Your task to perform on an android device: Set the phone to "Do not disturb". Image 0: 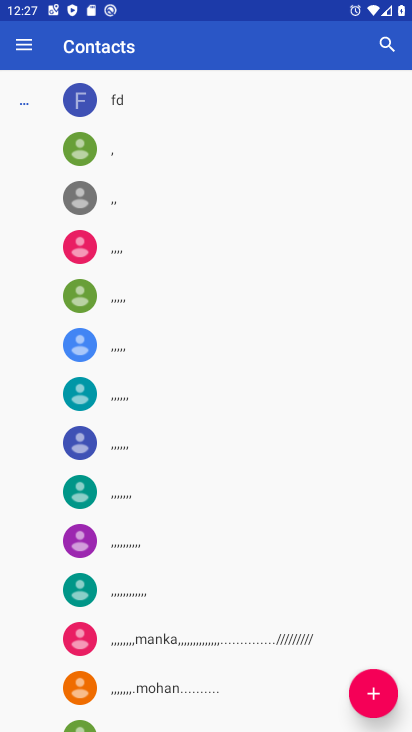
Step 0: press home button
Your task to perform on an android device: Set the phone to "Do not disturb". Image 1: 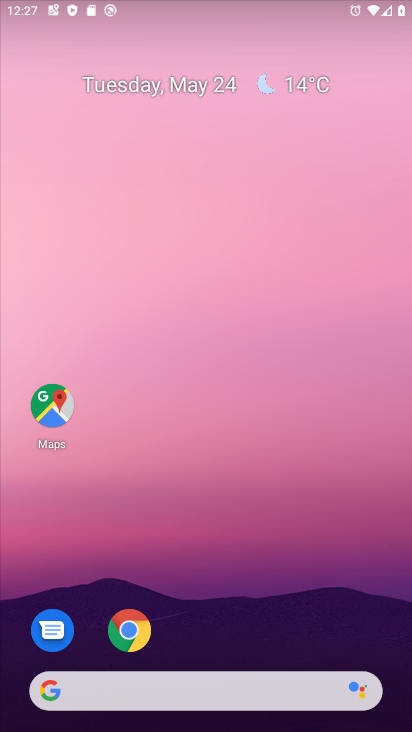
Step 1: drag from (353, 602) to (366, 221)
Your task to perform on an android device: Set the phone to "Do not disturb". Image 2: 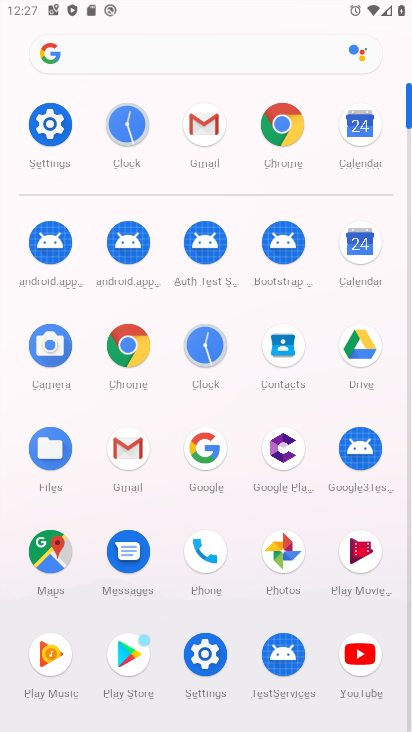
Step 2: click (39, 124)
Your task to perform on an android device: Set the phone to "Do not disturb". Image 3: 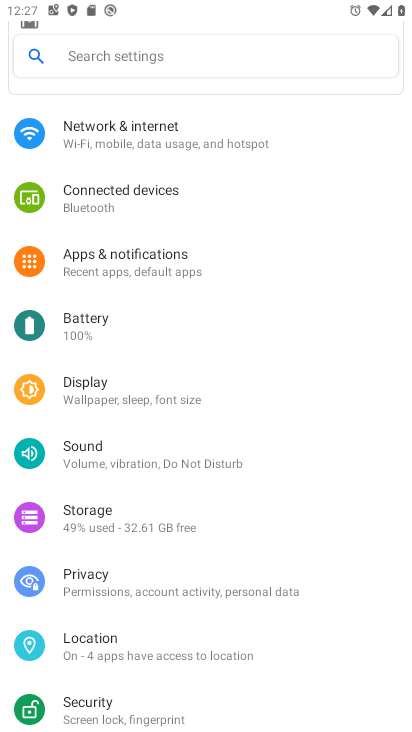
Step 3: click (147, 462)
Your task to perform on an android device: Set the phone to "Do not disturb". Image 4: 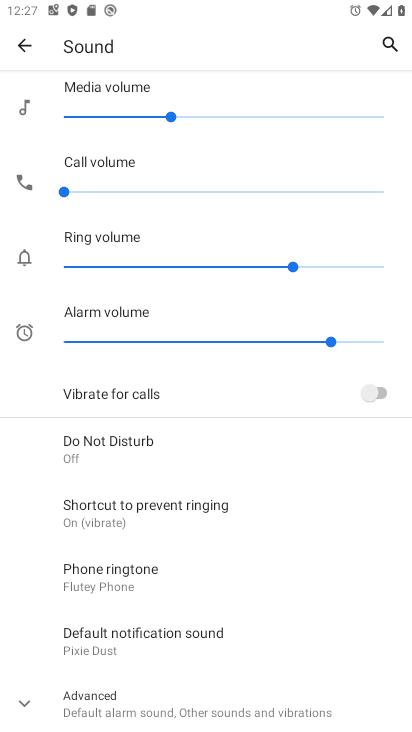
Step 4: click (201, 446)
Your task to perform on an android device: Set the phone to "Do not disturb". Image 5: 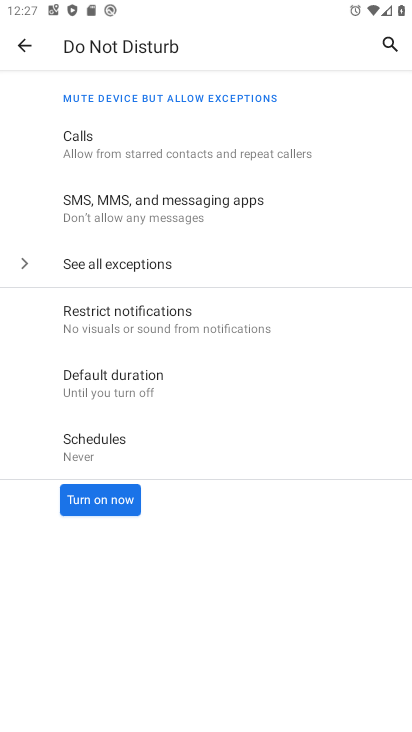
Step 5: drag from (283, 615) to (295, 348)
Your task to perform on an android device: Set the phone to "Do not disturb". Image 6: 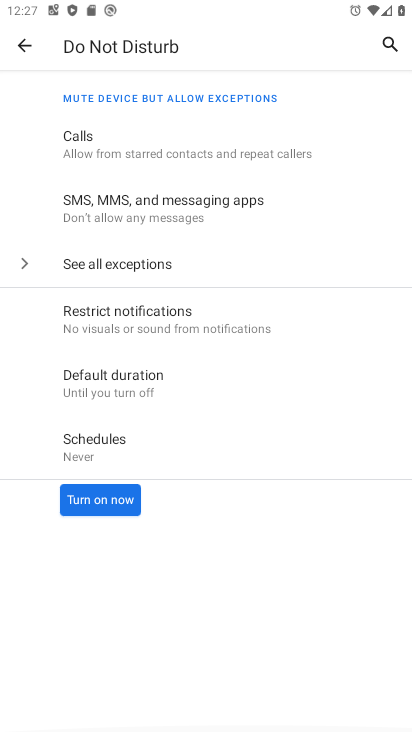
Step 6: click (75, 520)
Your task to perform on an android device: Set the phone to "Do not disturb". Image 7: 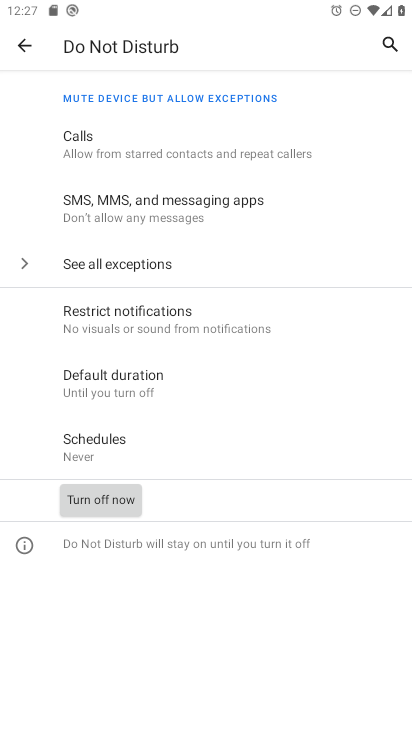
Step 7: task complete